Your task to perform on an android device: turn on location history Image 0: 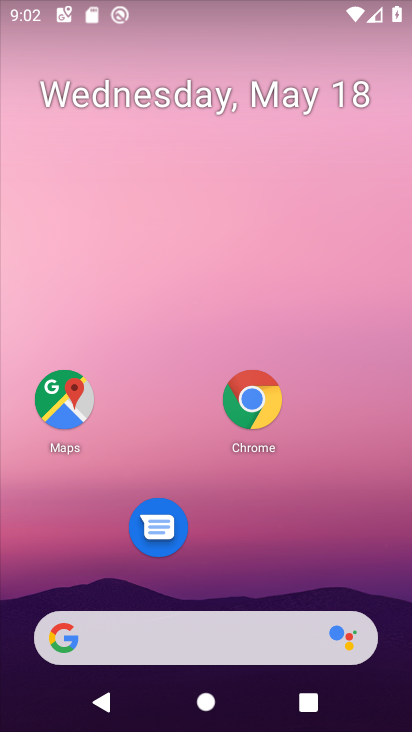
Step 0: drag from (208, 589) to (162, 86)
Your task to perform on an android device: turn on location history Image 1: 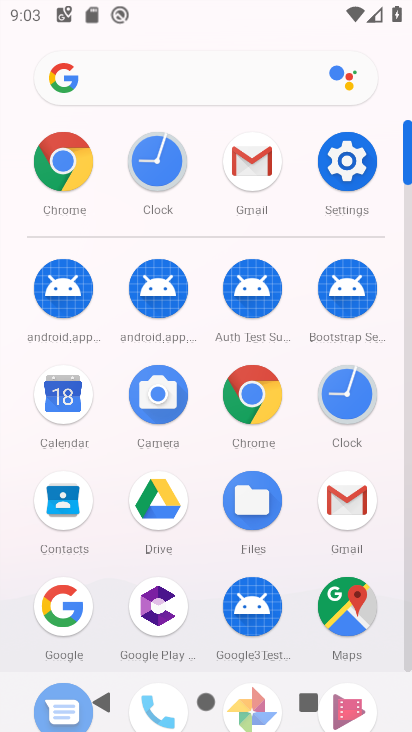
Step 1: click (344, 173)
Your task to perform on an android device: turn on location history Image 2: 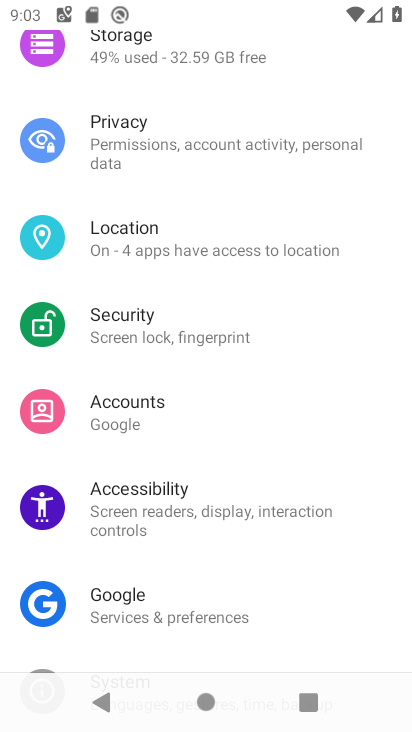
Step 2: click (150, 249)
Your task to perform on an android device: turn on location history Image 3: 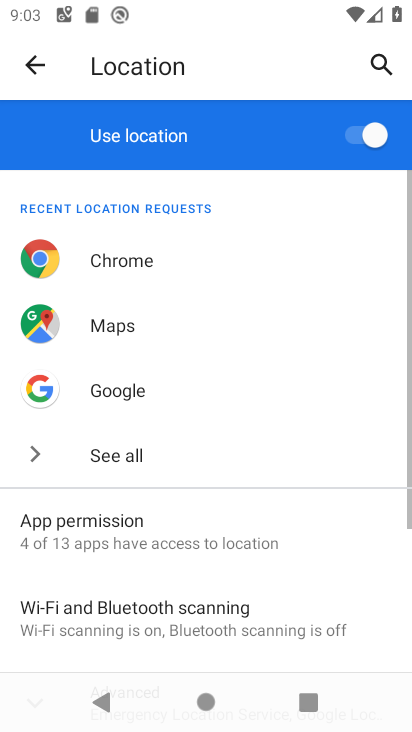
Step 3: drag from (193, 593) to (149, 284)
Your task to perform on an android device: turn on location history Image 4: 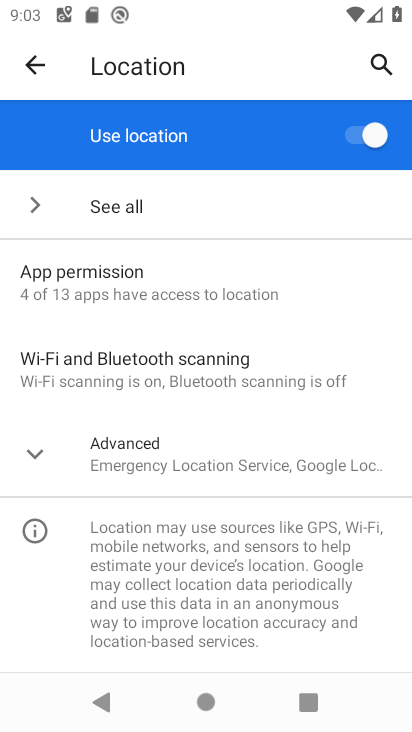
Step 4: drag from (152, 623) to (93, 397)
Your task to perform on an android device: turn on location history Image 5: 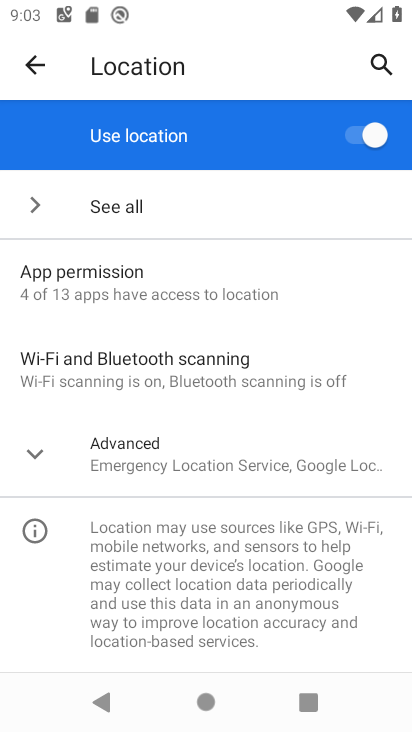
Step 5: click (130, 443)
Your task to perform on an android device: turn on location history Image 6: 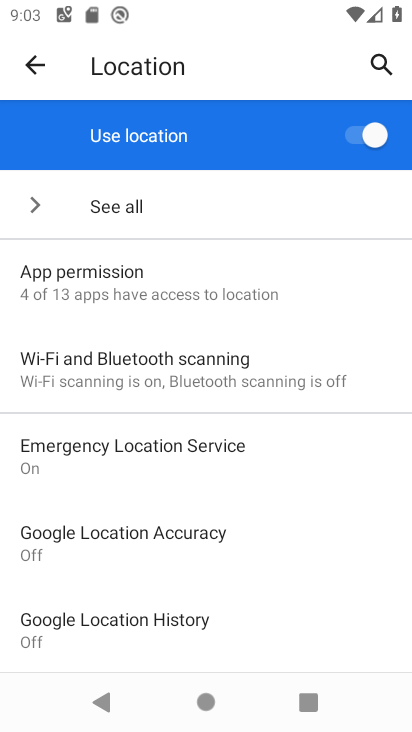
Step 6: drag from (126, 628) to (220, 286)
Your task to perform on an android device: turn on location history Image 7: 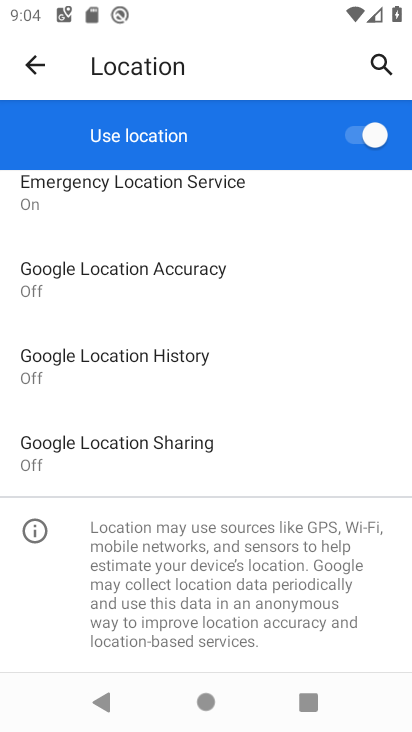
Step 7: click (80, 387)
Your task to perform on an android device: turn on location history Image 8: 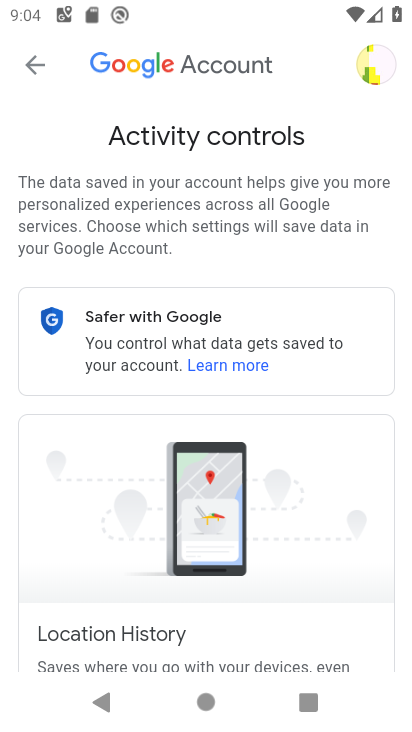
Step 8: task complete